Your task to perform on an android device: turn on airplane mode Image 0: 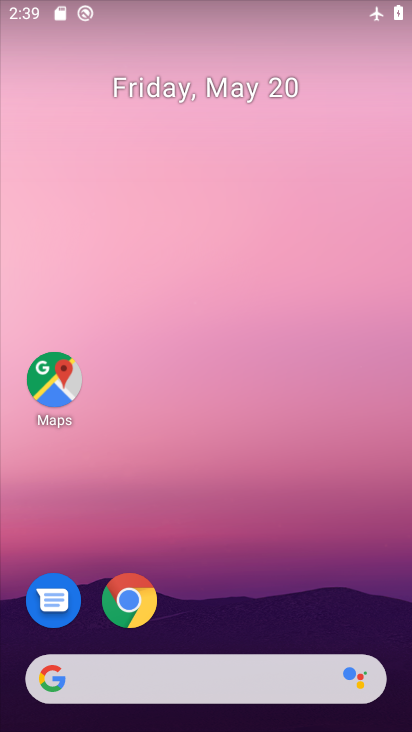
Step 0: drag from (284, 476) to (175, 26)
Your task to perform on an android device: turn on airplane mode Image 1: 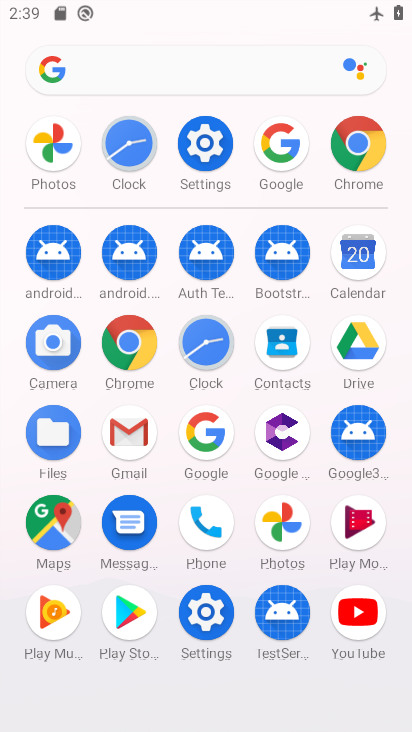
Step 1: click (194, 154)
Your task to perform on an android device: turn on airplane mode Image 2: 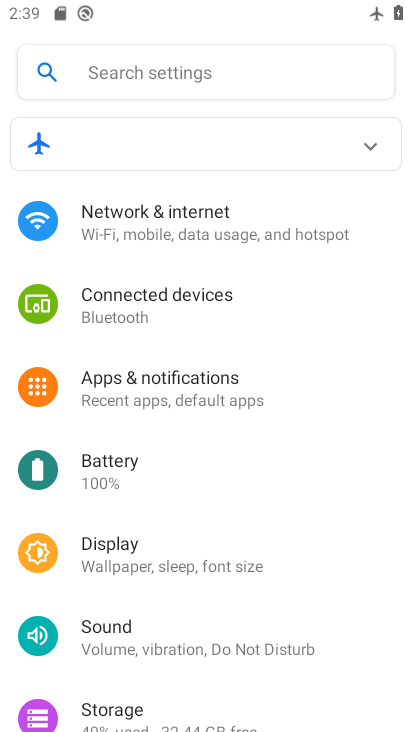
Step 2: click (180, 222)
Your task to perform on an android device: turn on airplane mode Image 3: 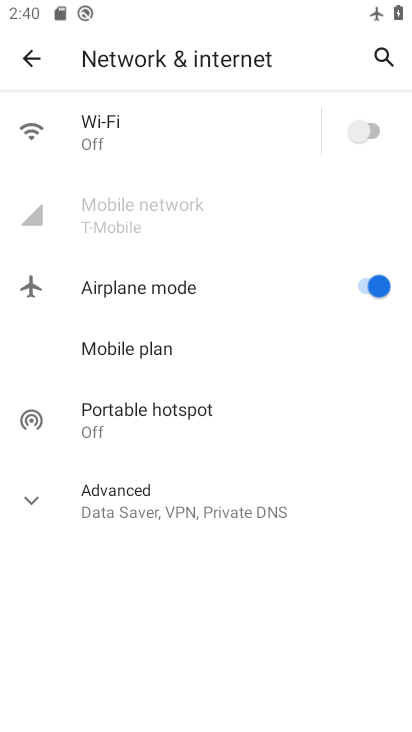
Step 3: task complete